Your task to perform on an android device: Open Google Chrome and open the bookmarks view Image 0: 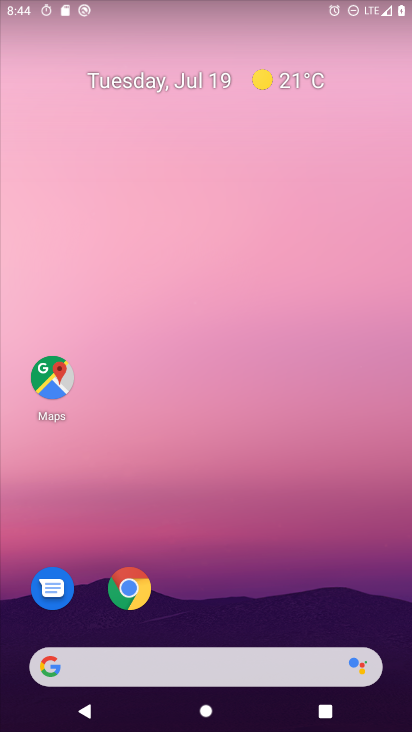
Step 0: drag from (278, 587) to (267, 156)
Your task to perform on an android device: Open Google Chrome and open the bookmarks view Image 1: 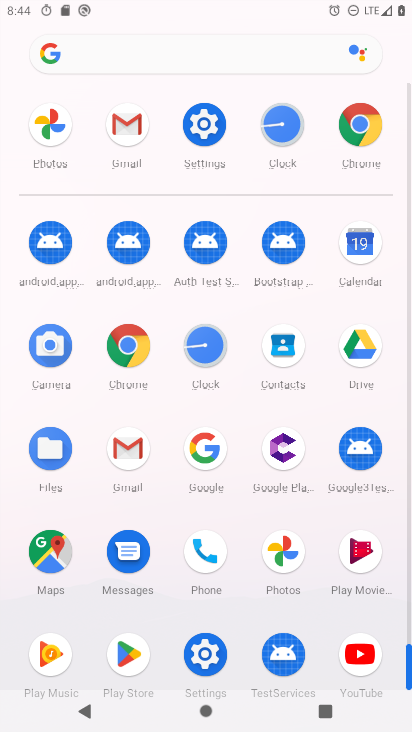
Step 1: click (134, 352)
Your task to perform on an android device: Open Google Chrome and open the bookmarks view Image 2: 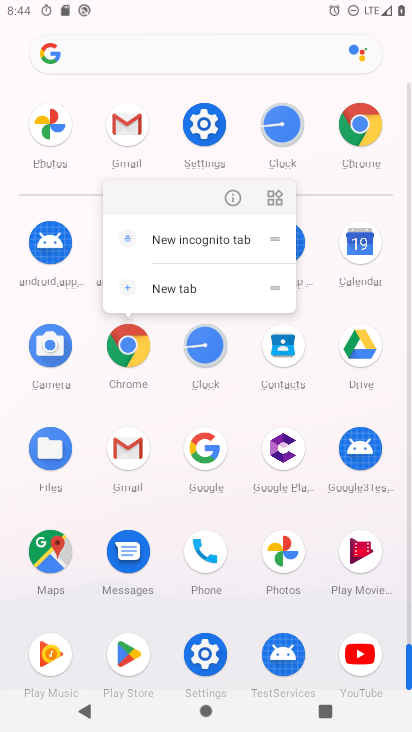
Step 2: click (134, 351)
Your task to perform on an android device: Open Google Chrome and open the bookmarks view Image 3: 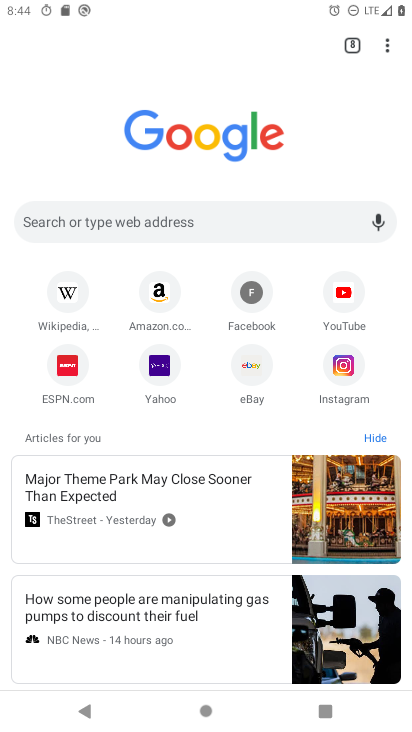
Step 3: click (394, 47)
Your task to perform on an android device: Open Google Chrome and open the bookmarks view Image 4: 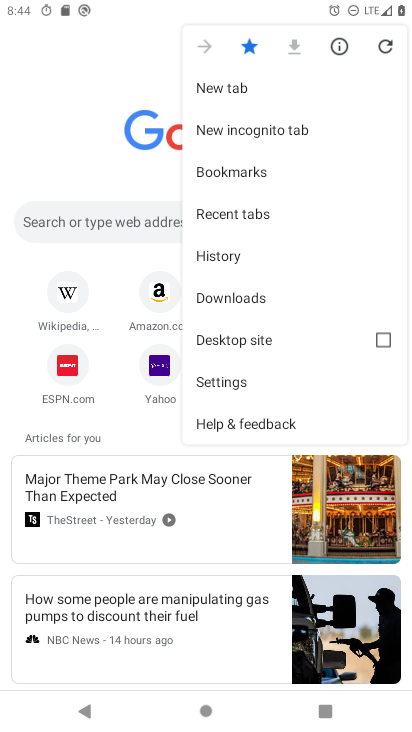
Step 4: click (269, 181)
Your task to perform on an android device: Open Google Chrome and open the bookmarks view Image 5: 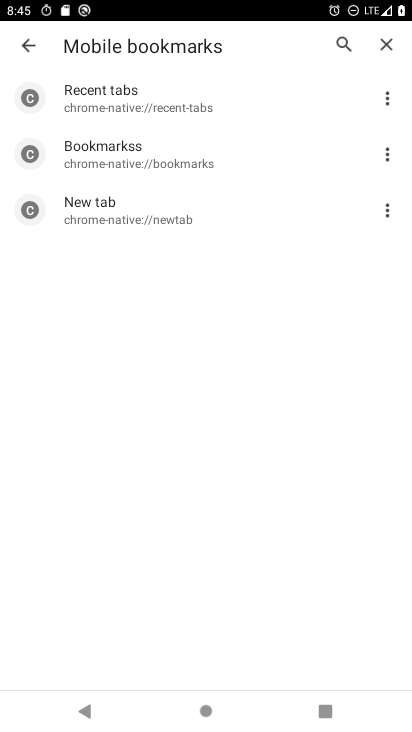
Step 5: click (158, 188)
Your task to perform on an android device: Open Google Chrome and open the bookmarks view Image 6: 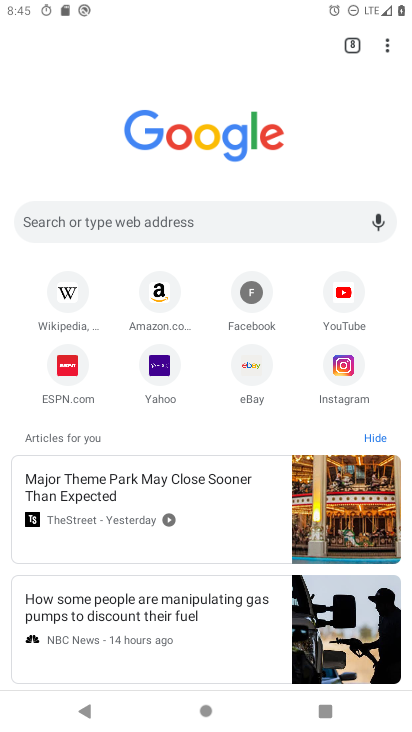
Step 6: task complete